Your task to perform on an android device: install app "Venmo" Image 0: 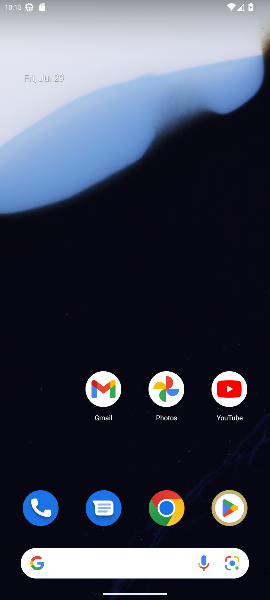
Step 0: drag from (149, 546) to (212, 40)
Your task to perform on an android device: install app "Venmo" Image 1: 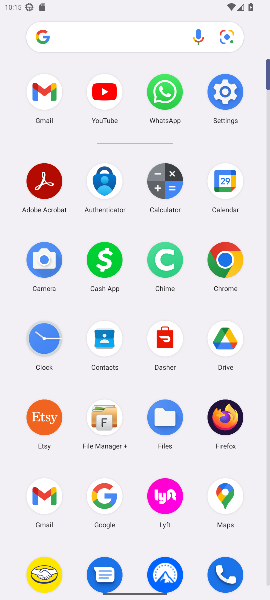
Step 1: drag from (195, 496) to (208, 185)
Your task to perform on an android device: install app "Venmo" Image 2: 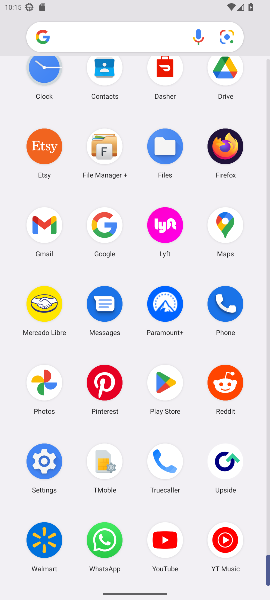
Step 2: click (166, 385)
Your task to perform on an android device: install app "Venmo" Image 3: 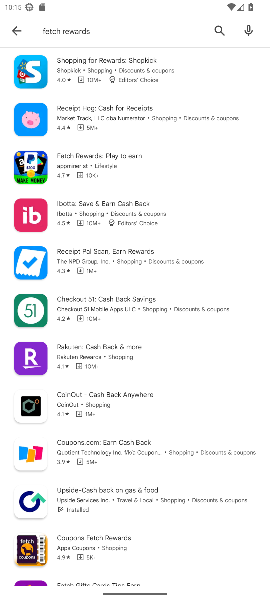
Step 3: click (220, 29)
Your task to perform on an android device: install app "Venmo" Image 4: 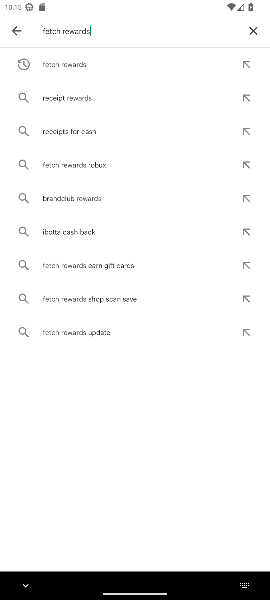
Step 4: click (253, 27)
Your task to perform on an android device: install app "Venmo" Image 5: 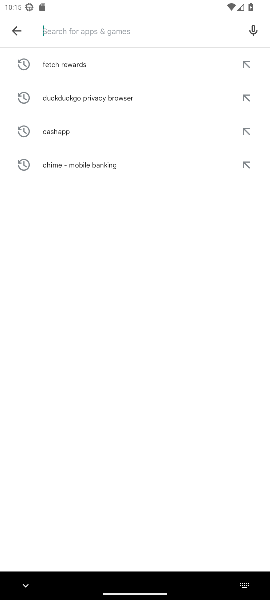
Step 5: type "venmo"
Your task to perform on an android device: install app "Venmo" Image 6: 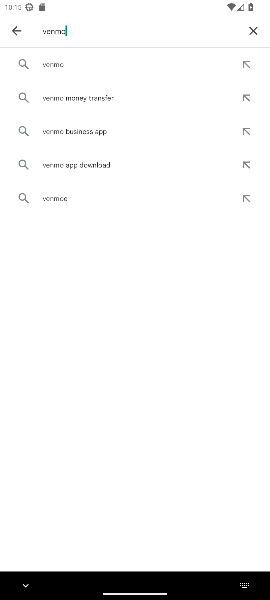
Step 6: click (78, 65)
Your task to perform on an android device: install app "Venmo" Image 7: 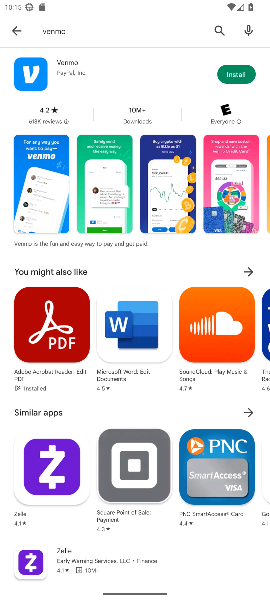
Step 7: click (241, 74)
Your task to perform on an android device: install app "Venmo" Image 8: 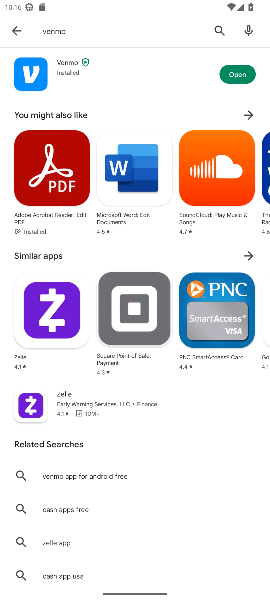
Step 8: task complete